Your task to perform on an android device: Go to settings Image 0: 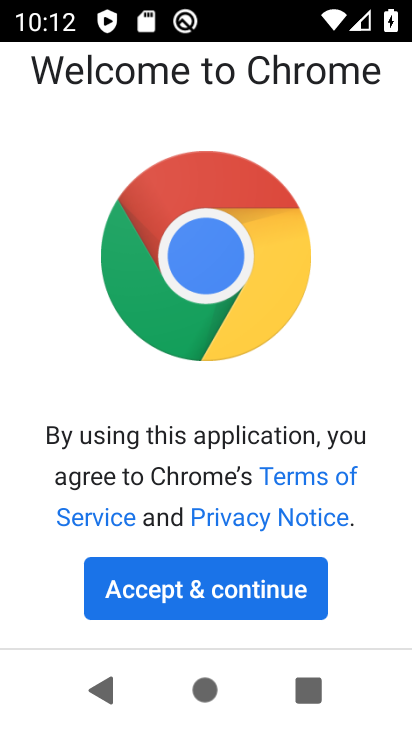
Step 0: press home button
Your task to perform on an android device: Go to settings Image 1: 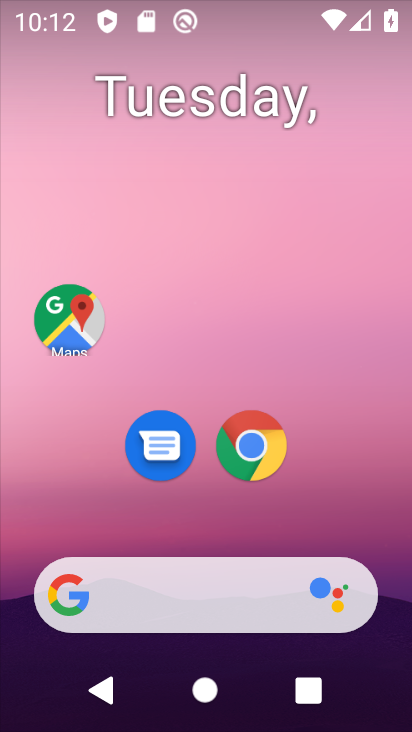
Step 1: drag from (220, 484) to (291, 17)
Your task to perform on an android device: Go to settings Image 2: 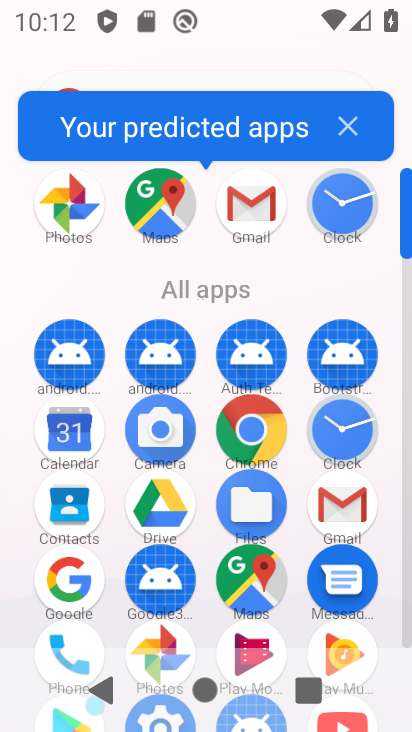
Step 2: drag from (195, 551) to (225, 143)
Your task to perform on an android device: Go to settings Image 3: 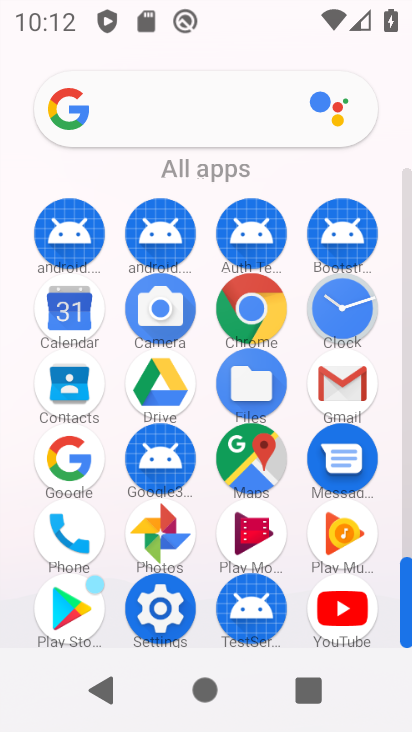
Step 3: click (169, 610)
Your task to perform on an android device: Go to settings Image 4: 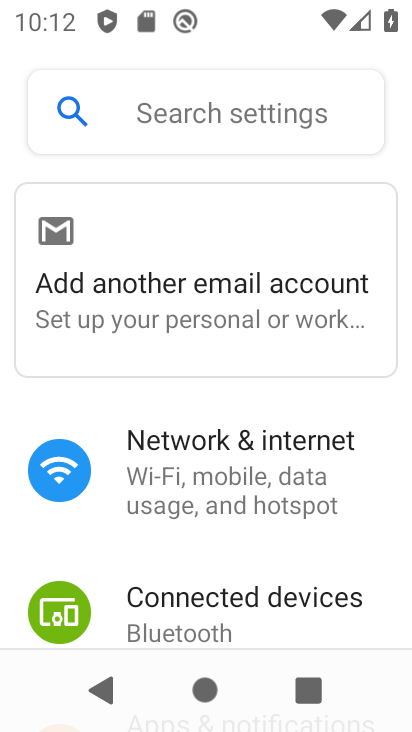
Step 4: task complete